Your task to perform on an android device: What's the weather going to be tomorrow? Image 0: 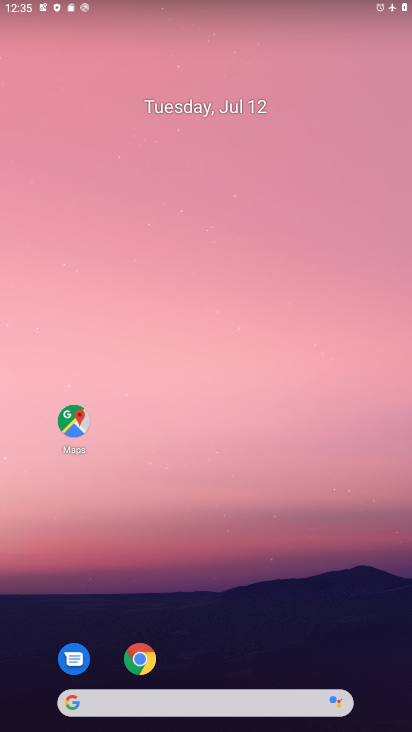
Step 0: drag from (244, 499) to (288, 67)
Your task to perform on an android device: What's the weather going to be tomorrow? Image 1: 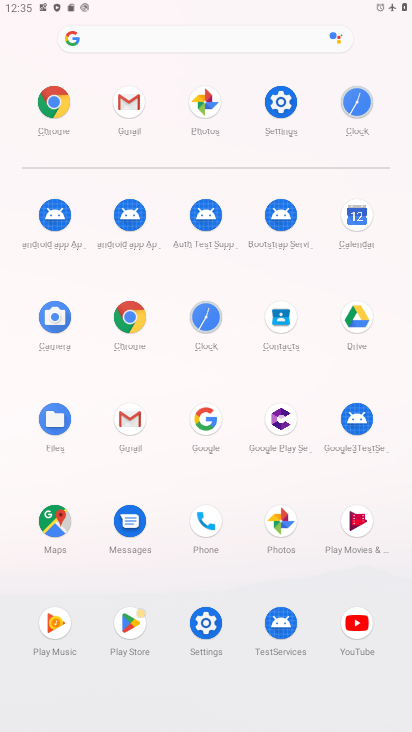
Step 1: click (194, 42)
Your task to perform on an android device: What's the weather going to be tomorrow? Image 2: 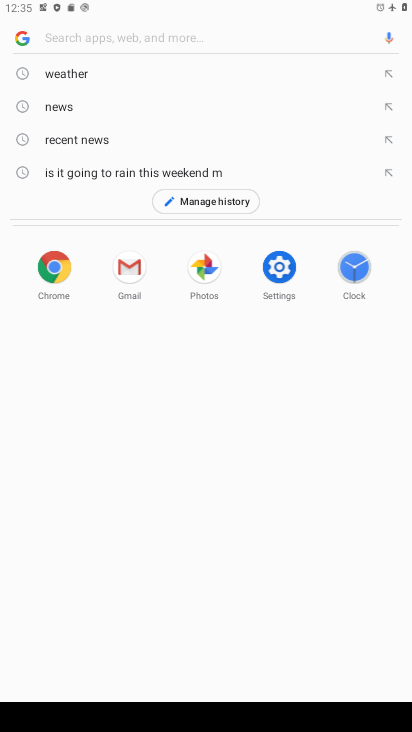
Step 2: click (97, 79)
Your task to perform on an android device: What's the weather going to be tomorrow? Image 3: 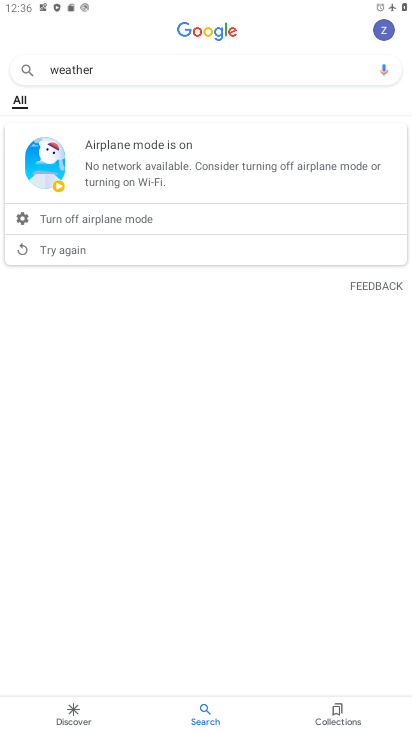
Step 3: task complete